Your task to perform on an android device: open the mobile data screen to see how much data has been used Image 0: 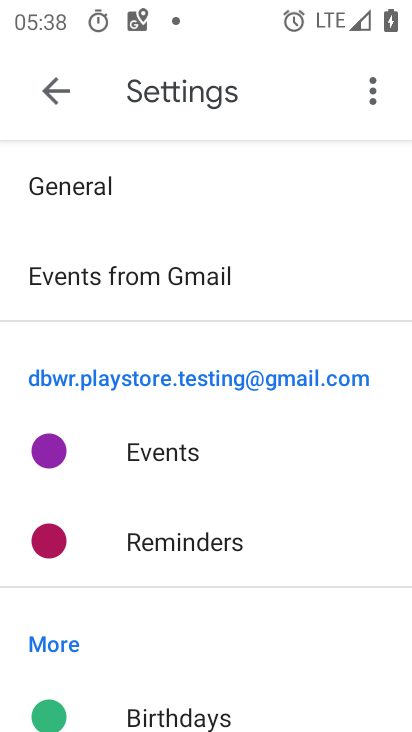
Step 0: press home button
Your task to perform on an android device: open the mobile data screen to see how much data has been used Image 1: 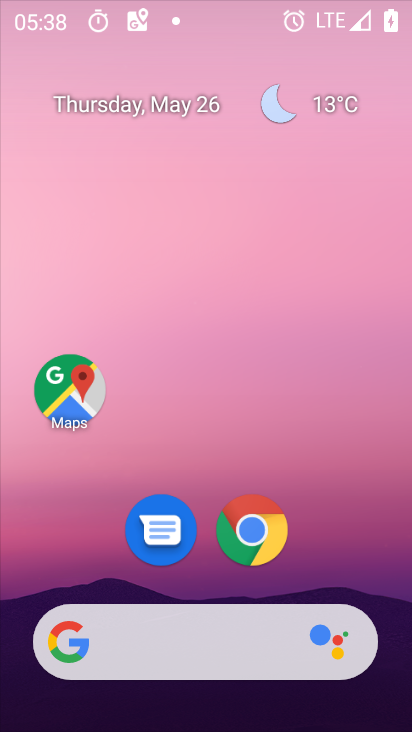
Step 1: drag from (279, 669) to (378, 10)
Your task to perform on an android device: open the mobile data screen to see how much data has been used Image 2: 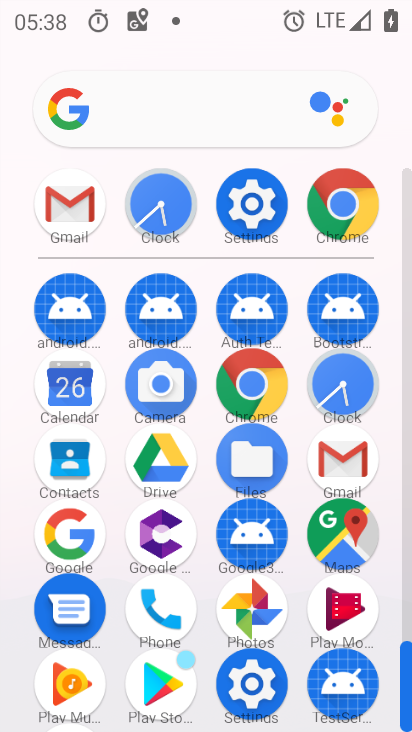
Step 2: click (255, 675)
Your task to perform on an android device: open the mobile data screen to see how much data has been used Image 3: 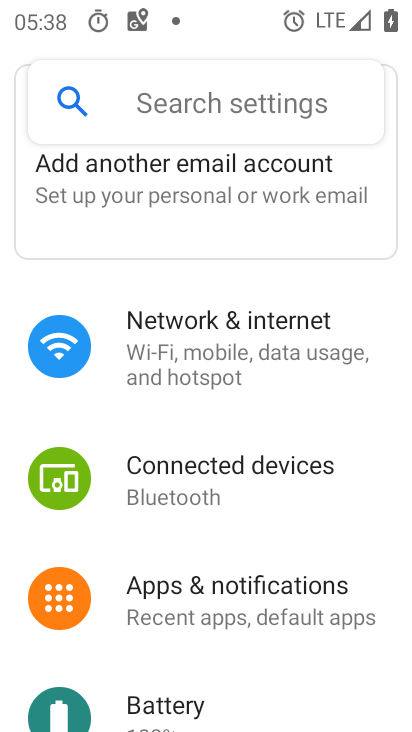
Step 3: click (247, 319)
Your task to perform on an android device: open the mobile data screen to see how much data has been used Image 4: 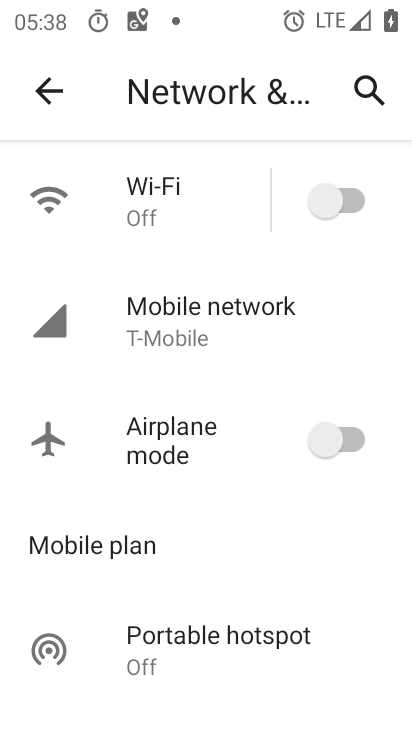
Step 4: drag from (262, 644) to (234, 409)
Your task to perform on an android device: open the mobile data screen to see how much data has been used Image 5: 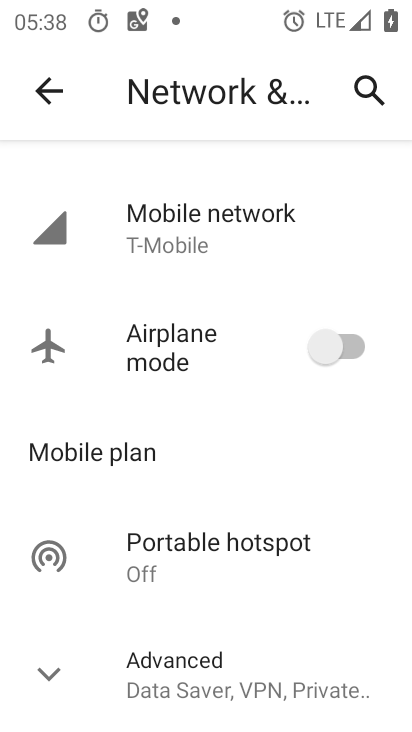
Step 5: click (224, 238)
Your task to perform on an android device: open the mobile data screen to see how much data has been used Image 6: 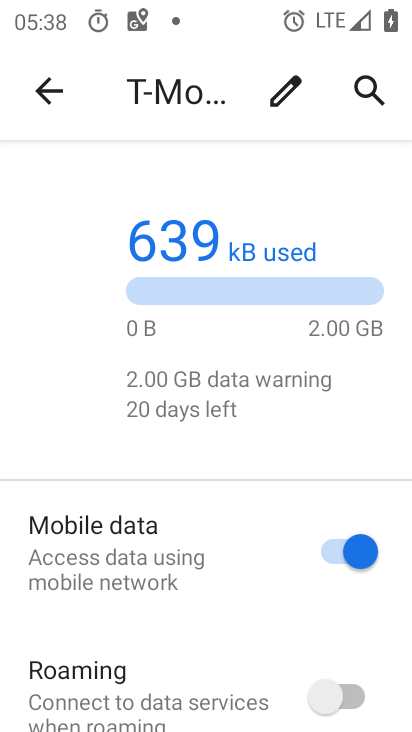
Step 6: task complete